Your task to perform on an android device: turn off smart reply in the gmail app Image 0: 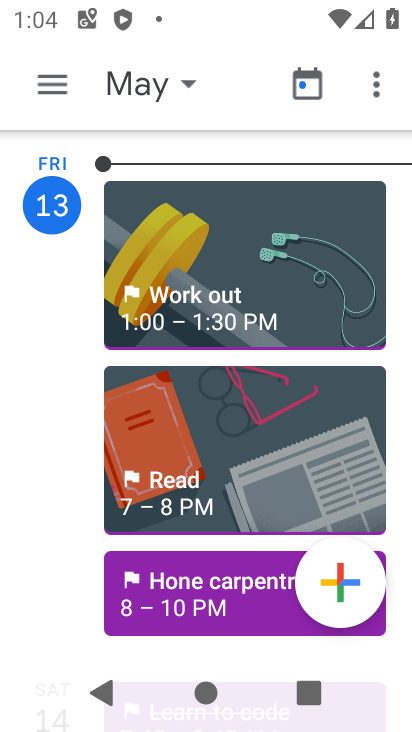
Step 0: press home button
Your task to perform on an android device: turn off smart reply in the gmail app Image 1: 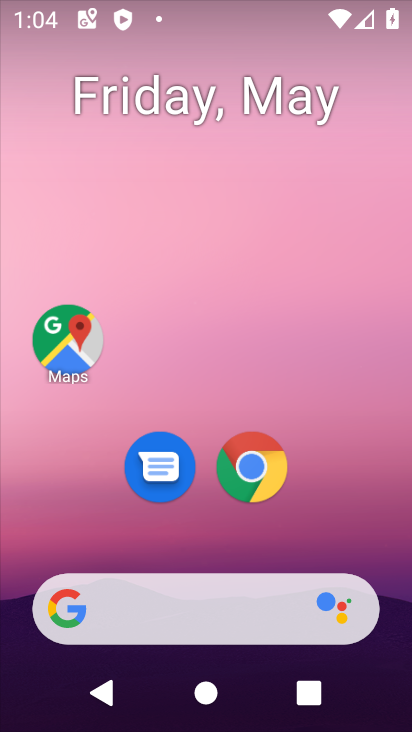
Step 1: drag from (320, 504) to (229, 25)
Your task to perform on an android device: turn off smart reply in the gmail app Image 2: 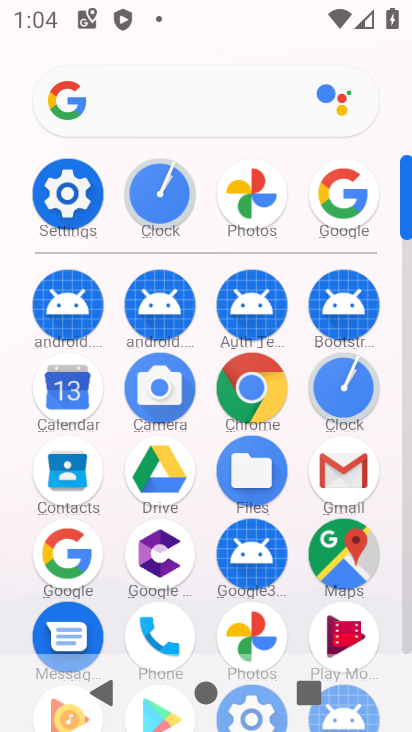
Step 2: drag from (200, 541) to (209, 364)
Your task to perform on an android device: turn off smart reply in the gmail app Image 3: 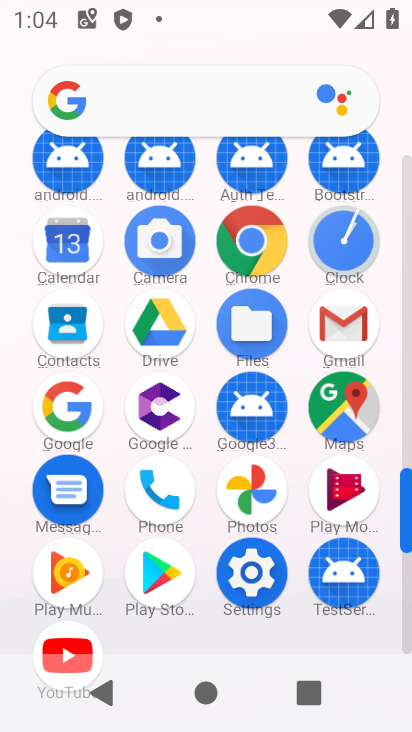
Step 3: click (340, 326)
Your task to perform on an android device: turn off smart reply in the gmail app Image 4: 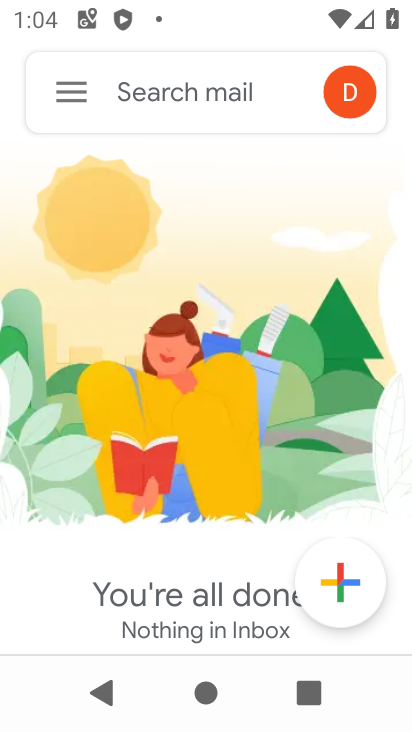
Step 4: click (65, 96)
Your task to perform on an android device: turn off smart reply in the gmail app Image 5: 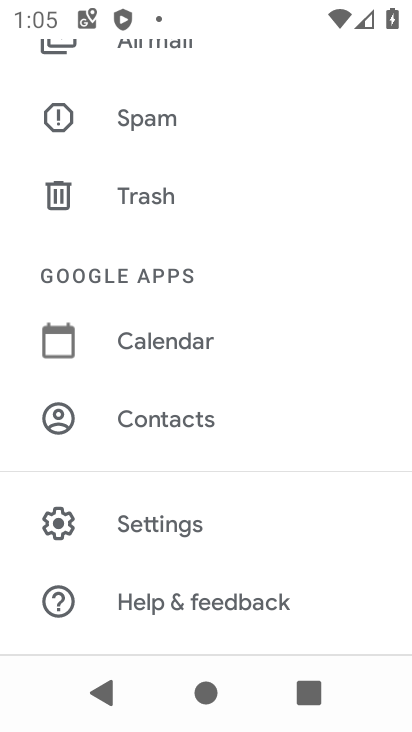
Step 5: click (182, 523)
Your task to perform on an android device: turn off smart reply in the gmail app Image 6: 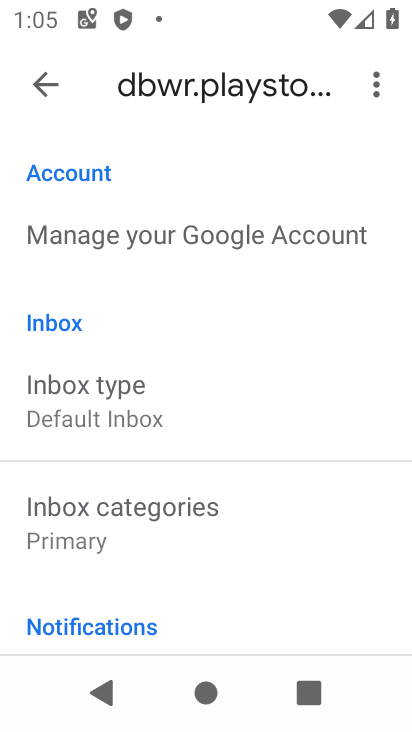
Step 6: drag from (179, 559) to (238, 386)
Your task to perform on an android device: turn off smart reply in the gmail app Image 7: 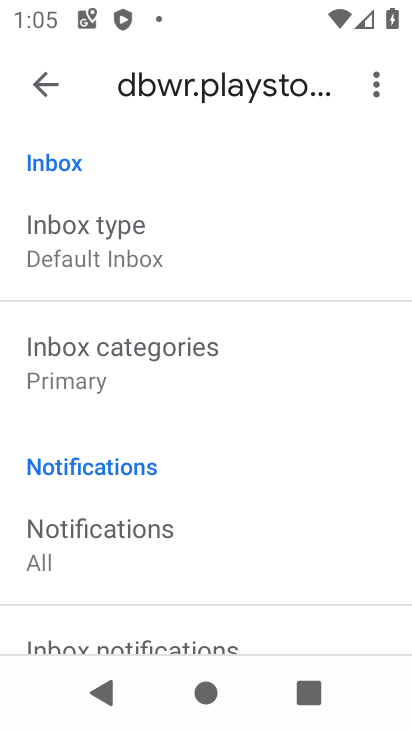
Step 7: drag from (167, 560) to (223, 408)
Your task to perform on an android device: turn off smart reply in the gmail app Image 8: 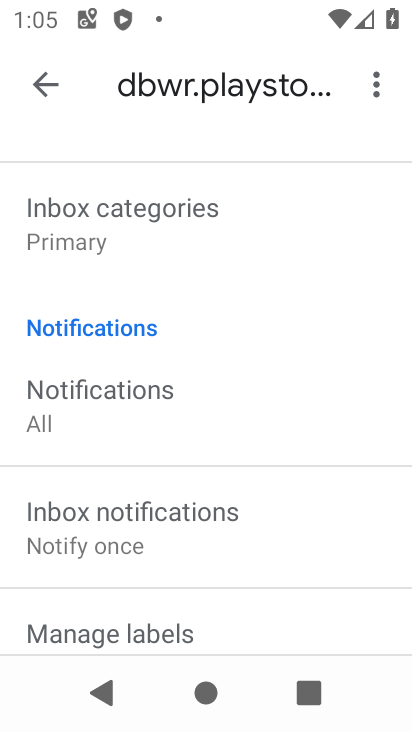
Step 8: drag from (174, 560) to (246, 410)
Your task to perform on an android device: turn off smart reply in the gmail app Image 9: 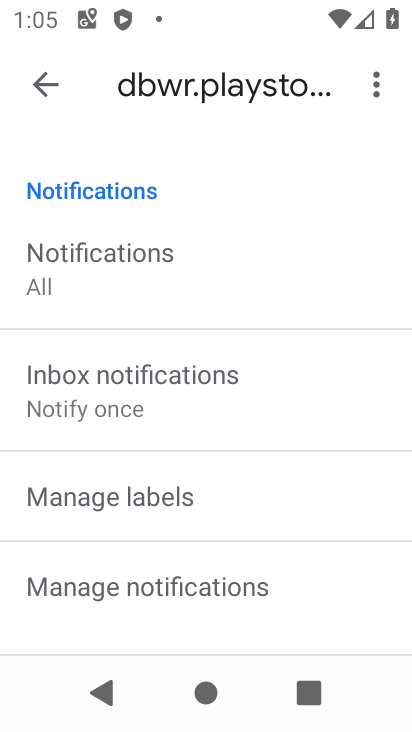
Step 9: drag from (165, 545) to (264, 390)
Your task to perform on an android device: turn off smart reply in the gmail app Image 10: 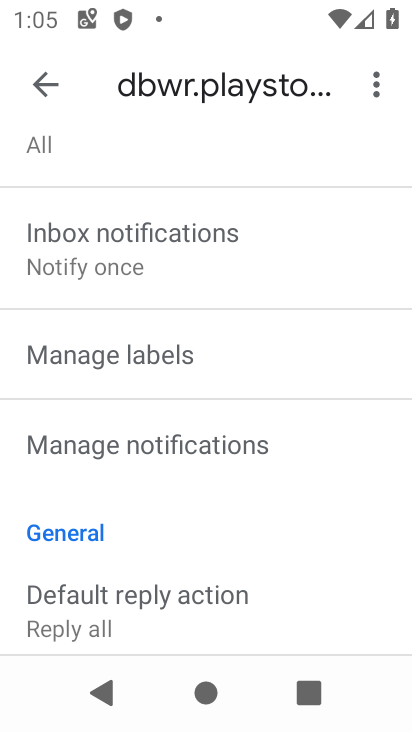
Step 10: drag from (162, 536) to (252, 365)
Your task to perform on an android device: turn off smart reply in the gmail app Image 11: 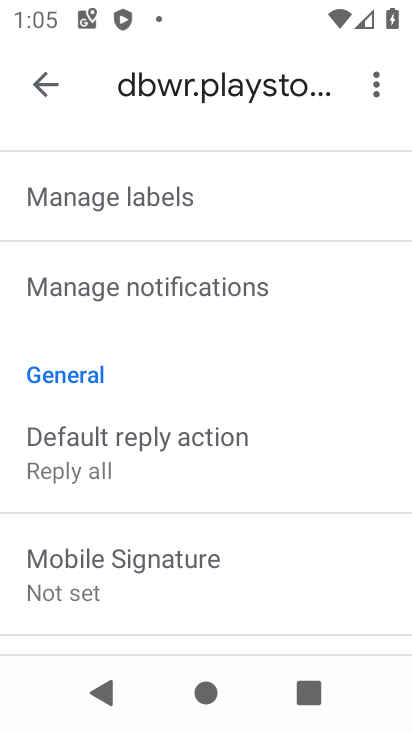
Step 11: drag from (163, 496) to (209, 431)
Your task to perform on an android device: turn off smart reply in the gmail app Image 12: 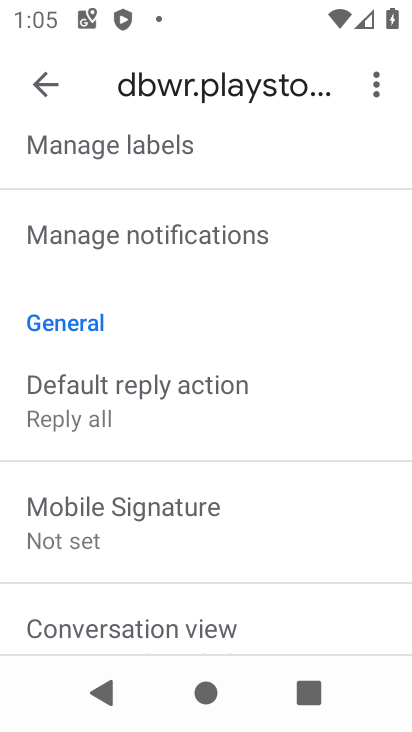
Step 12: drag from (175, 540) to (233, 440)
Your task to perform on an android device: turn off smart reply in the gmail app Image 13: 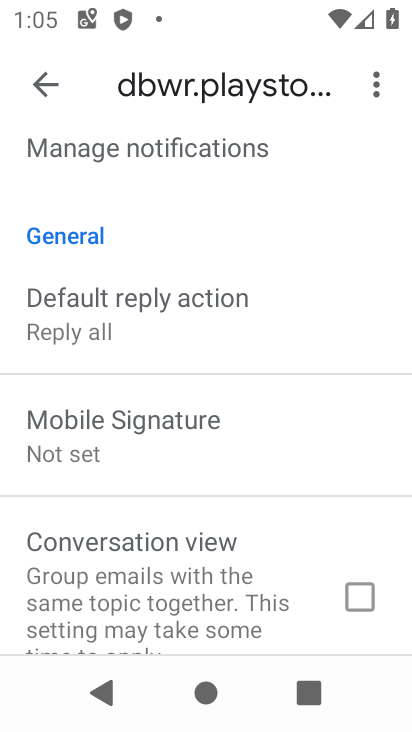
Step 13: drag from (164, 501) to (222, 399)
Your task to perform on an android device: turn off smart reply in the gmail app Image 14: 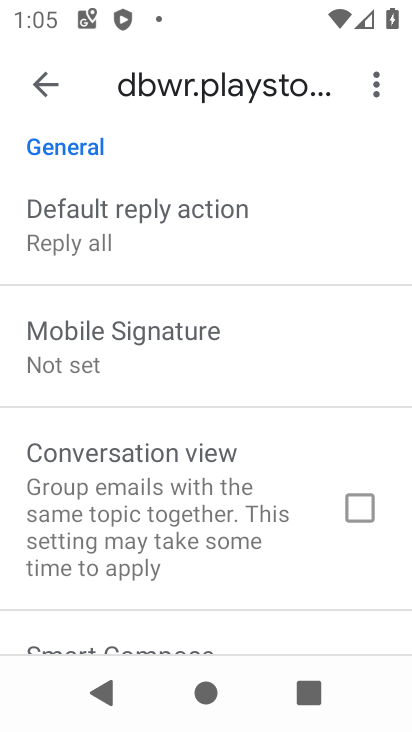
Step 14: drag from (161, 623) to (261, 457)
Your task to perform on an android device: turn off smart reply in the gmail app Image 15: 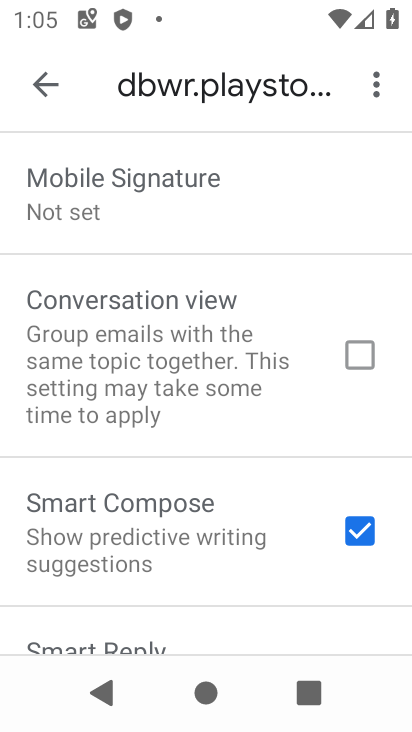
Step 15: drag from (198, 604) to (292, 417)
Your task to perform on an android device: turn off smart reply in the gmail app Image 16: 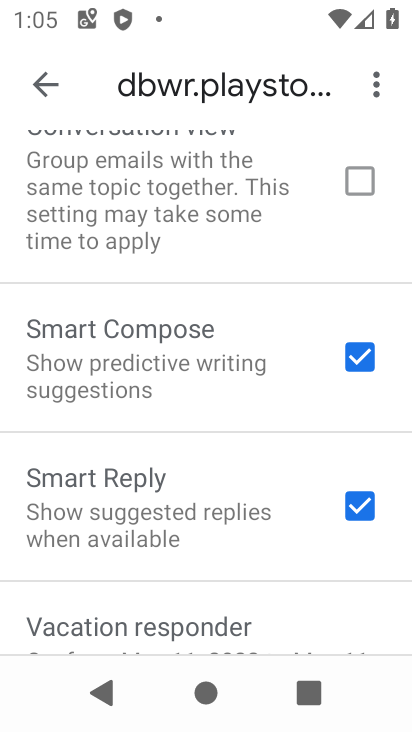
Step 16: click (360, 503)
Your task to perform on an android device: turn off smart reply in the gmail app Image 17: 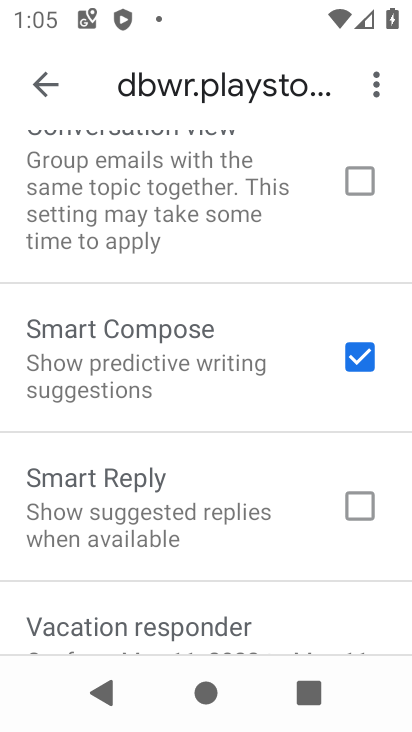
Step 17: task complete